Your task to perform on an android device: change alarm snooze length Image 0: 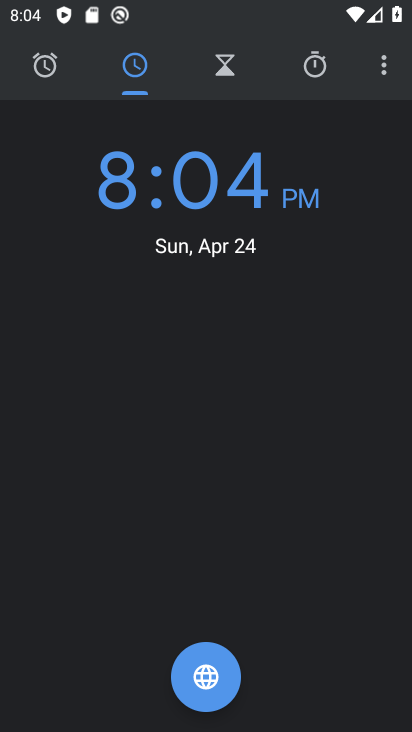
Step 0: press back button
Your task to perform on an android device: change alarm snooze length Image 1: 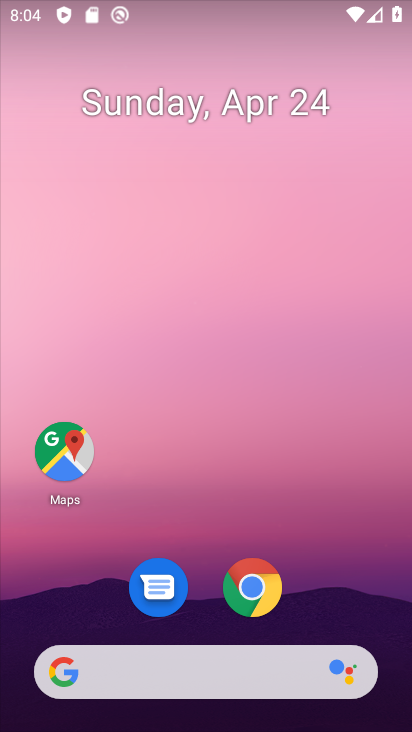
Step 1: drag from (230, 539) to (316, 91)
Your task to perform on an android device: change alarm snooze length Image 2: 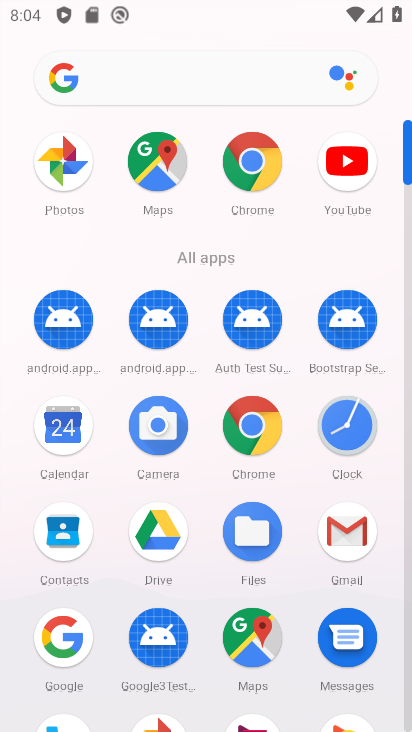
Step 2: click (355, 427)
Your task to perform on an android device: change alarm snooze length Image 3: 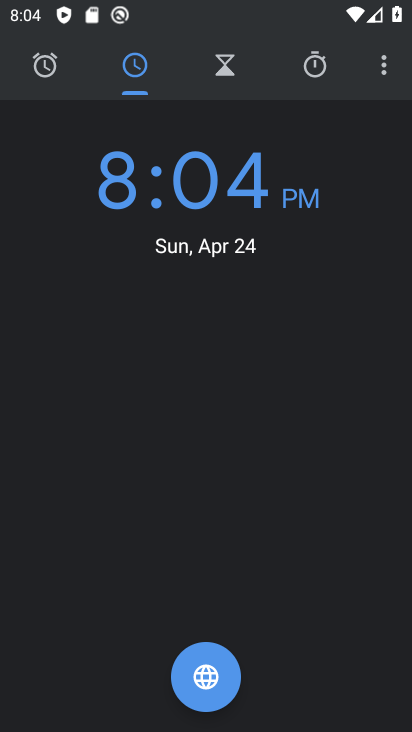
Step 3: click (384, 71)
Your task to perform on an android device: change alarm snooze length Image 4: 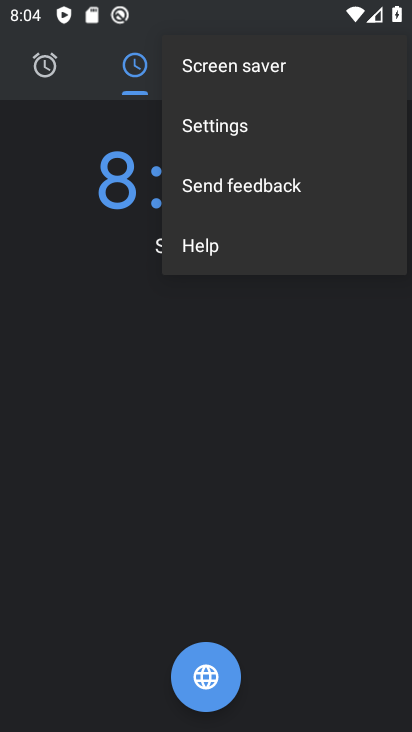
Step 4: click (241, 132)
Your task to perform on an android device: change alarm snooze length Image 5: 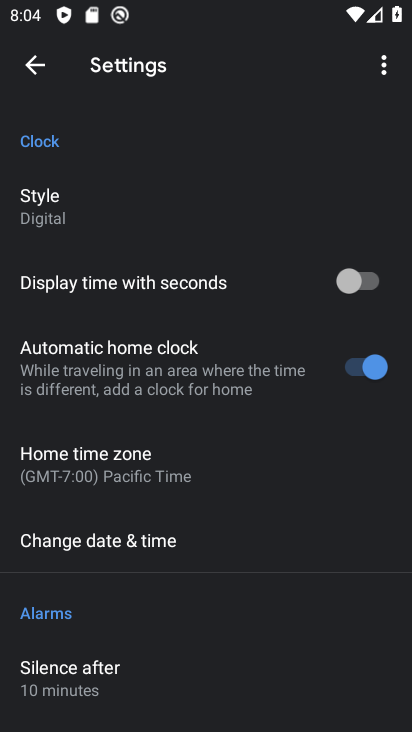
Step 5: drag from (129, 653) to (199, 344)
Your task to perform on an android device: change alarm snooze length Image 6: 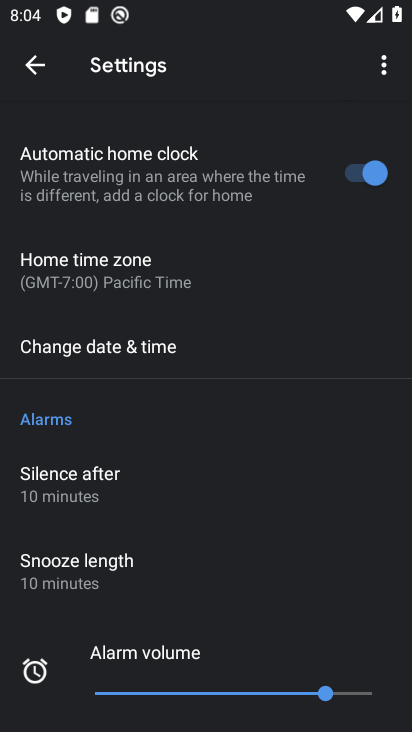
Step 6: click (137, 577)
Your task to perform on an android device: change alarm snooze length Image 7: 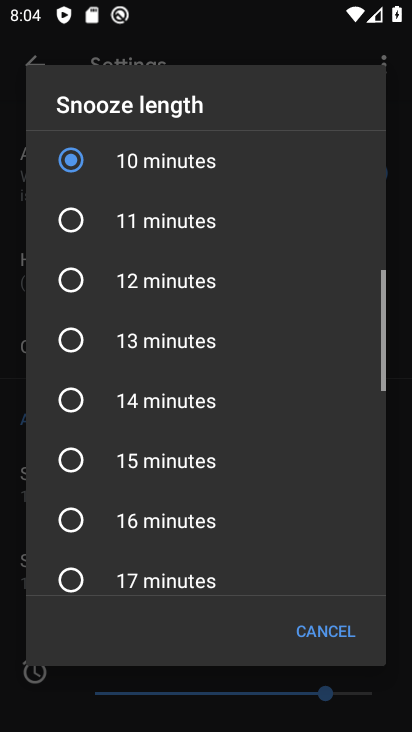
Step 7: click (53, 207)
Your task to perform on an android device: change alarm snooze length Image 8: 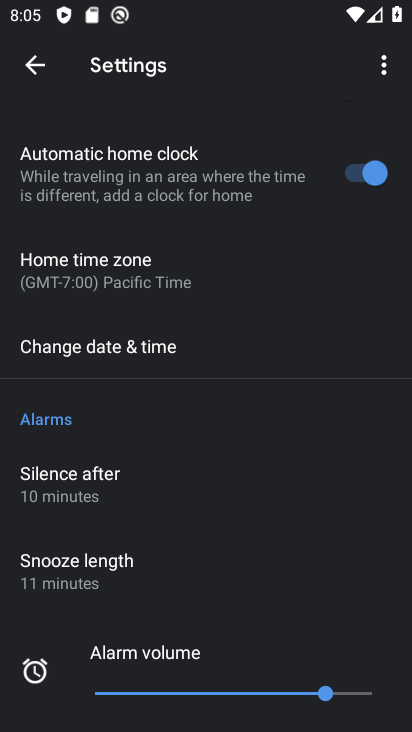
Step 8: task complete